Your task to perform on an android device: Search for sushi restaurants on Maps Image 0: 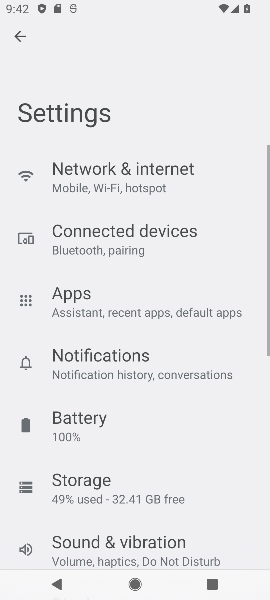
Step 0: press back button
Your task to perform on an android device: Search for sushi restaurants on Maps Image 1: 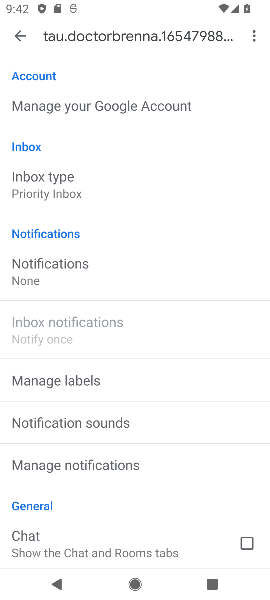
Step 1: click (18, 30)
Your task to perform on an android device: Search for sushi restaurants on Maps Image 2: 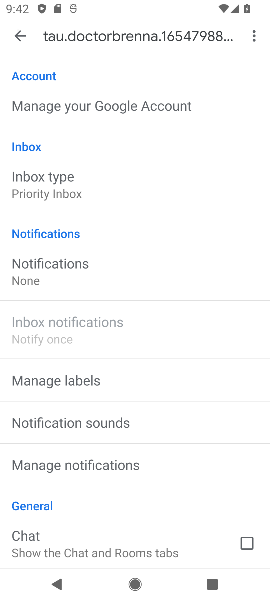
Step 2: click (18, 30)
Your task to perform on an android device: Search for sushi restaurants on Maps Image 3: 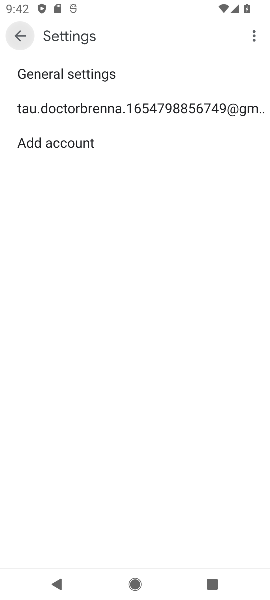
Step 3: click (18, 33)
Your task to perform on an android device: Search for sushi restaurants on Maps Image 4: 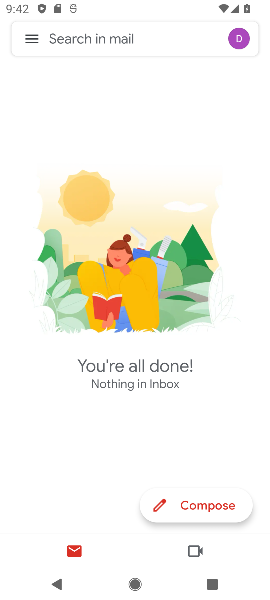
Step 4: click (16, 37)
Your task to perform on an android device: Search for sushi restaurants on Maps Image 5: 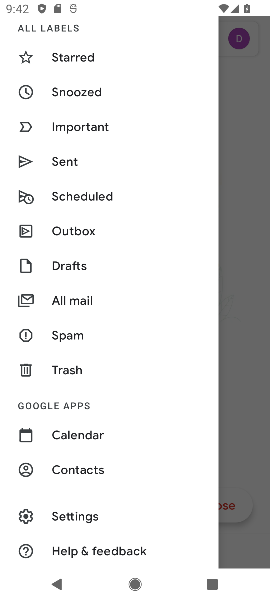
Step 5: press home button
Your task to perform on an android device: Search for sushi restaurants on Maps Image 6: 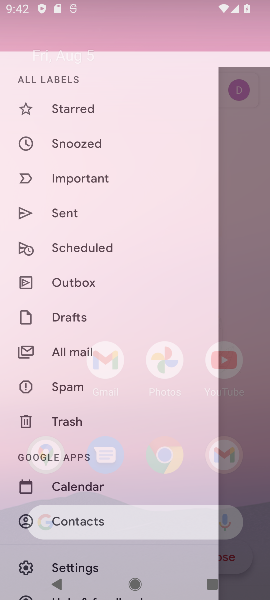
Step 6: press back button
Your task to perform on an android device: Search for sushi restaurants on Maps Image 7: 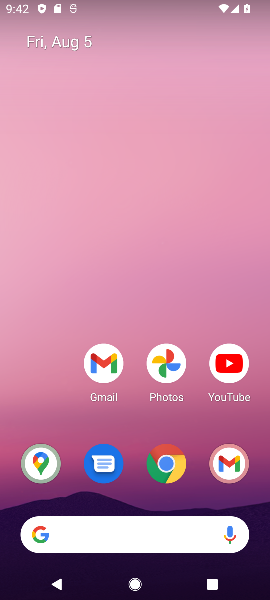
Step 7: press back button
Your task to perform on an android device: Search for sushi restaurants on Maps Image 8: 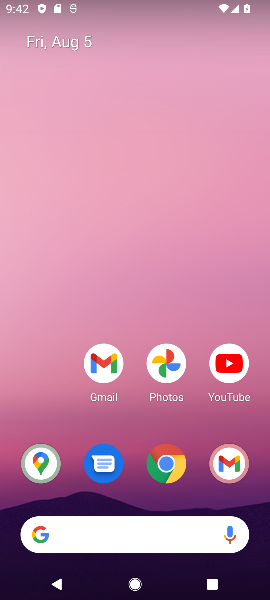
Step 8: press back button
Your task to perform on an android device: Search for sushi restaurants on Maps Image 9: 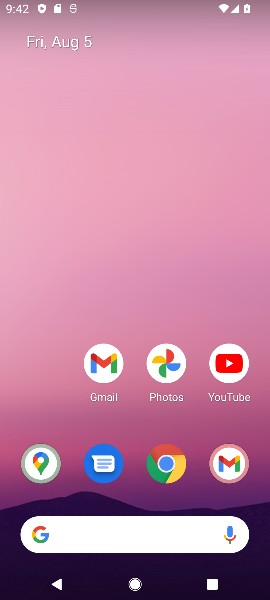
Step 9: drag from (178, 472) to (174, 96)
Your task to perform on an android device: Search for sushi restaurants on Maps Image 10: 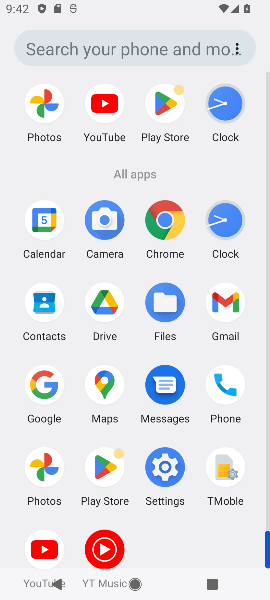
Step 10: drag from (196, 329) to (157, 58)
Your task to perform on an android device: Search for sushi restaurants on Maps Image 11: 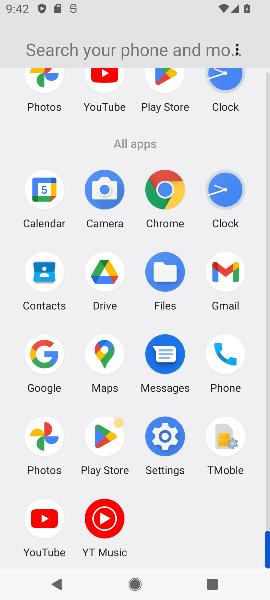
Step 11: click (94, 357)
Your task to perform on an android device: Search for sushi restaurants on Maps Image 12: 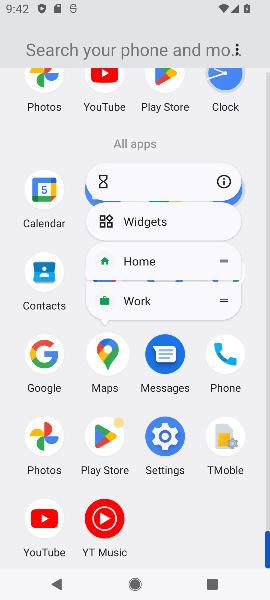
Step 12: click (99, 360)
Your task to perform on an android device: Search for sushi restaurants on Maps Image 13: 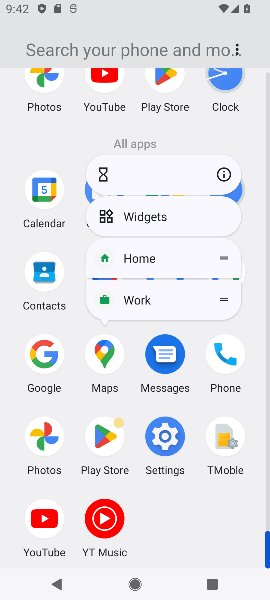
Step 13: click (99, 360)
Your task to perform on an android device: Search for sushi restaurants on Maps Image 14: 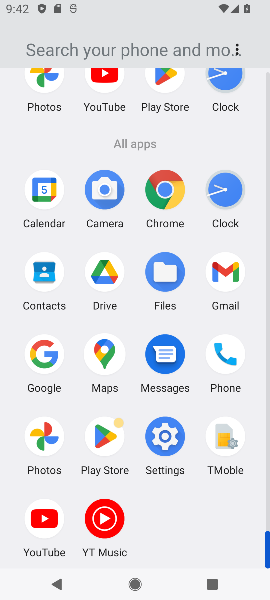
Step 14: click (99, 360)
Your task to perform on an android device: Search for sushi restaurants on Maps Image 15: 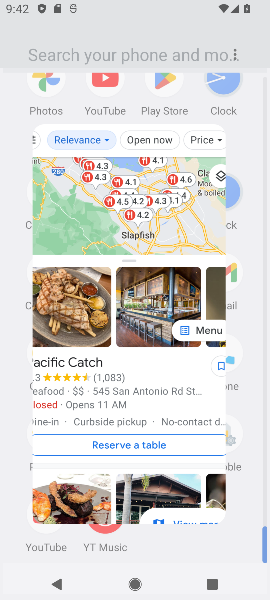
Step 15: click (99, 360)
Your task to perform on an android device: Search for sushi restaurants on Maps Image 16: 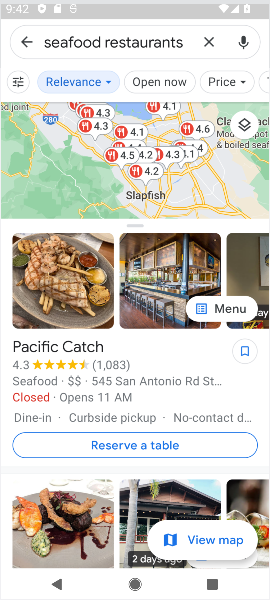
Step 16: click (99, 360)
Your task to perform on an android device: Search for sushi restaurants on Maps Image 17: 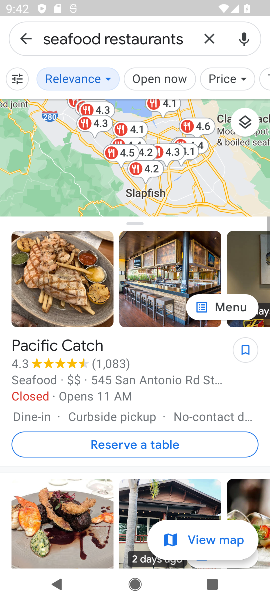
Step 17: click (207, 34)
Your task to perform on an android device: Search for sushi restaurants on Maps Image 18: 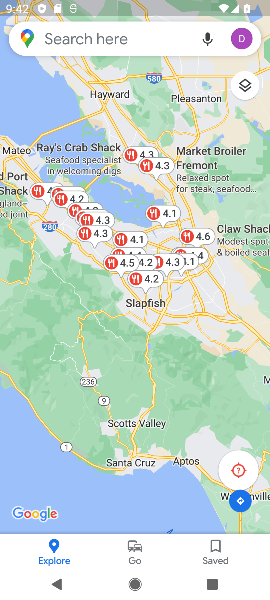
Step 18: click (61, 38)
Your task to perform on an android device: Search for sushi restaurants on Maps Image 19: 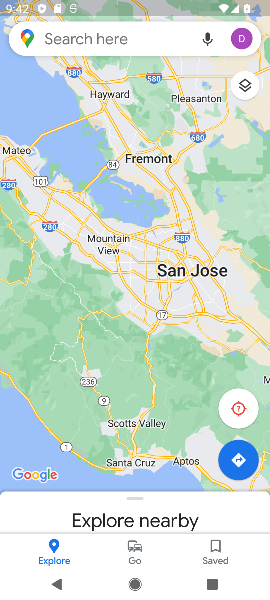
Step 19: click (61, 38)
Your task to perform on an android device: Search for sushi restaurants on Maps Image 20: 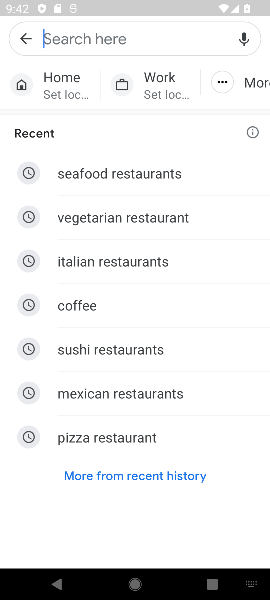
Step 20: click (92, 345)
Your task to perform on an android device: Search for sushi restaurants on Maps Image 21: 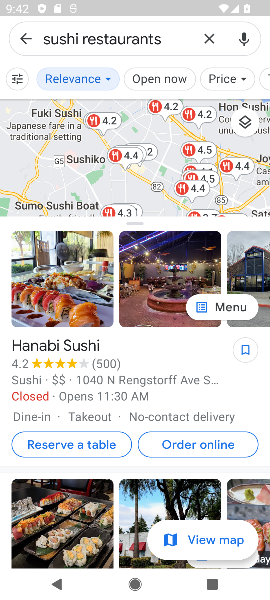
Step 21: task complete